Your task to perform on an android device: open app "Spotify: Music and Podcasts" (install if not already installed) Image 0: 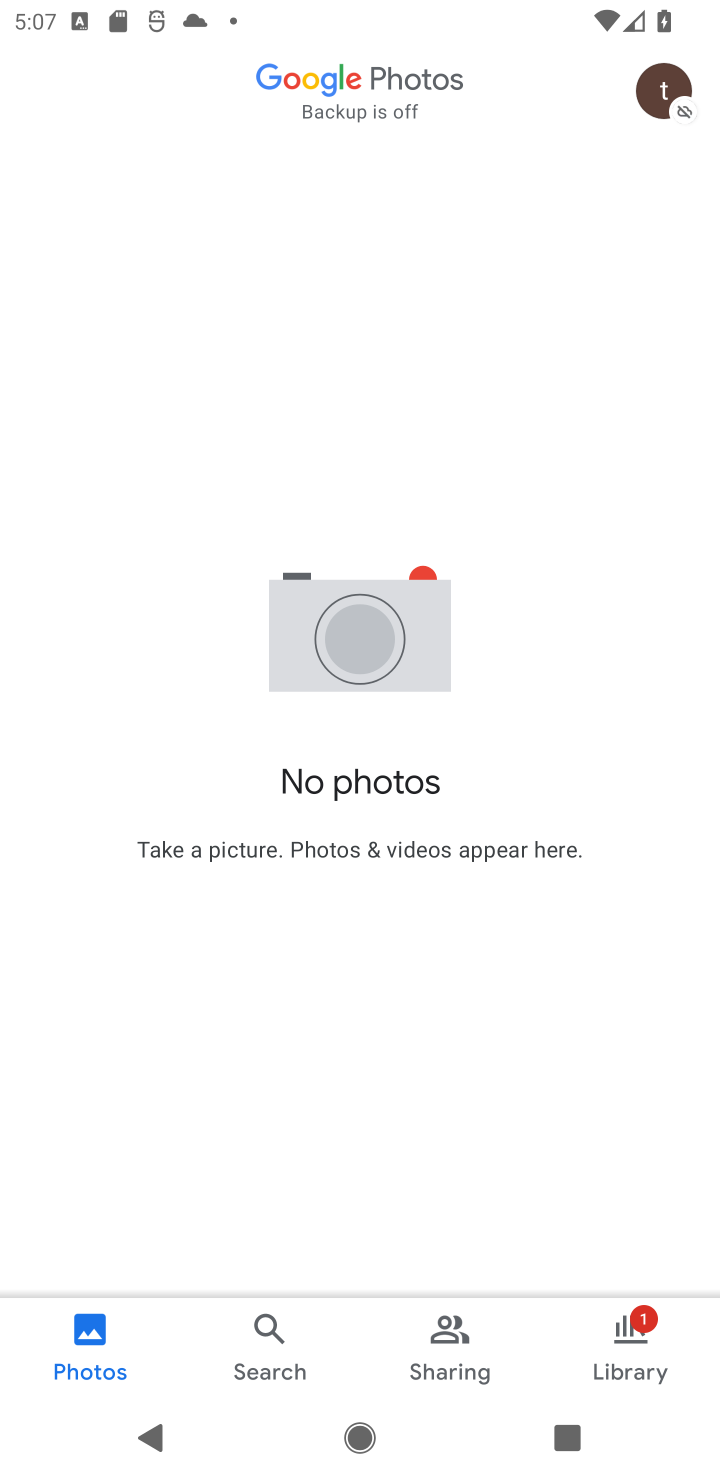
Step 0: press home button
Your task to perform on an android device: open app "Spotify: Music and Podcasts" (install if not already installed) Image 1: 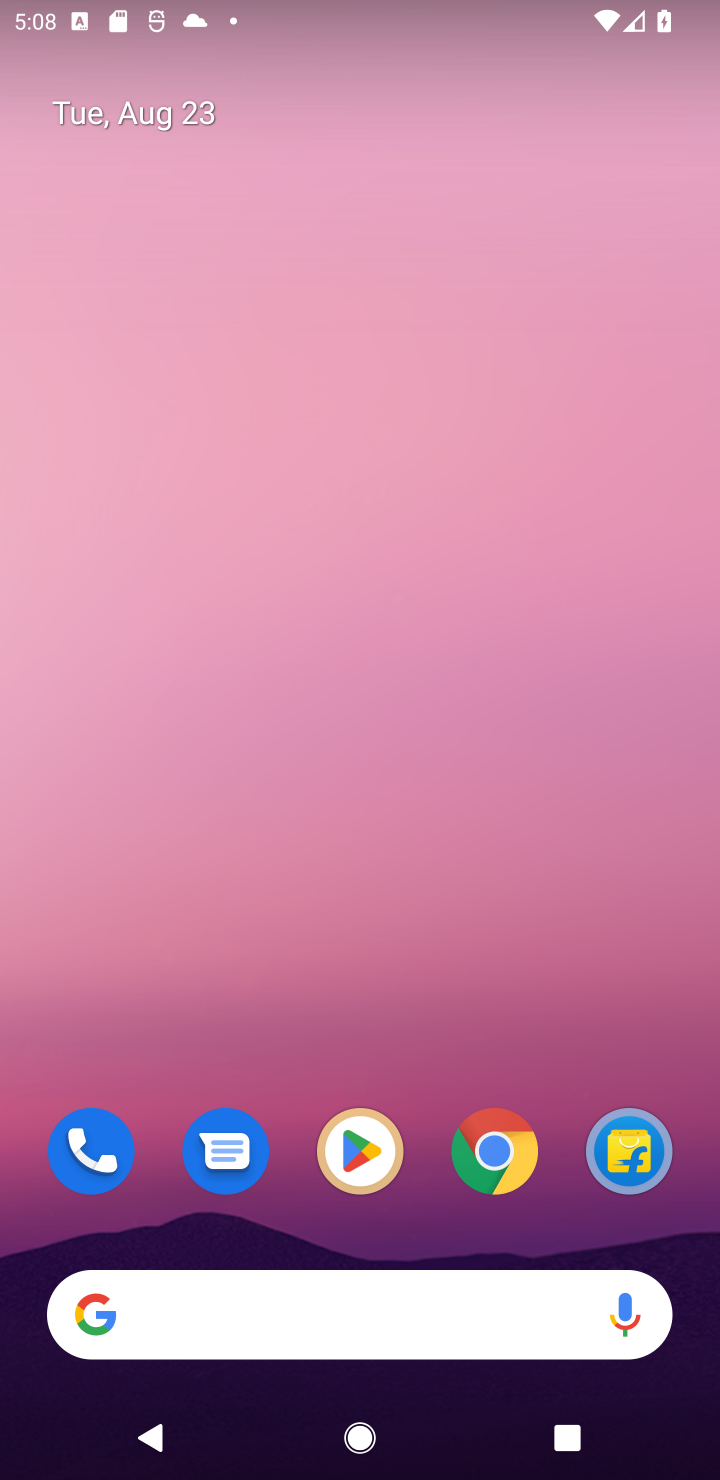
Step 1: click (354, 1160)
Your task to perform on an android device: open app "Spotify: Music and Podcasts" (install if not already installed) Image 2: 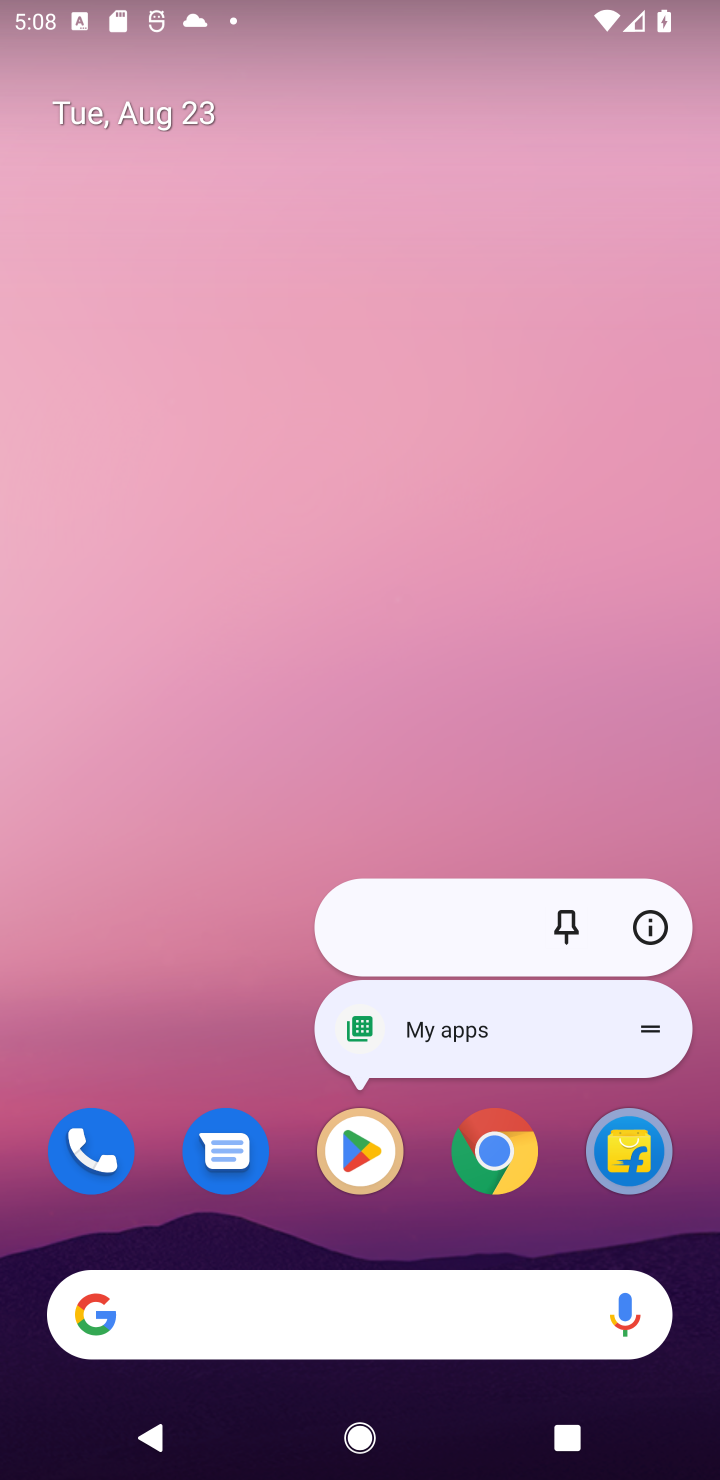
Step 2: click (354, 1167)
Your task to perform on an android device: open app "Spotify: Music and Podcasts" (install if not already installed) Image 3: 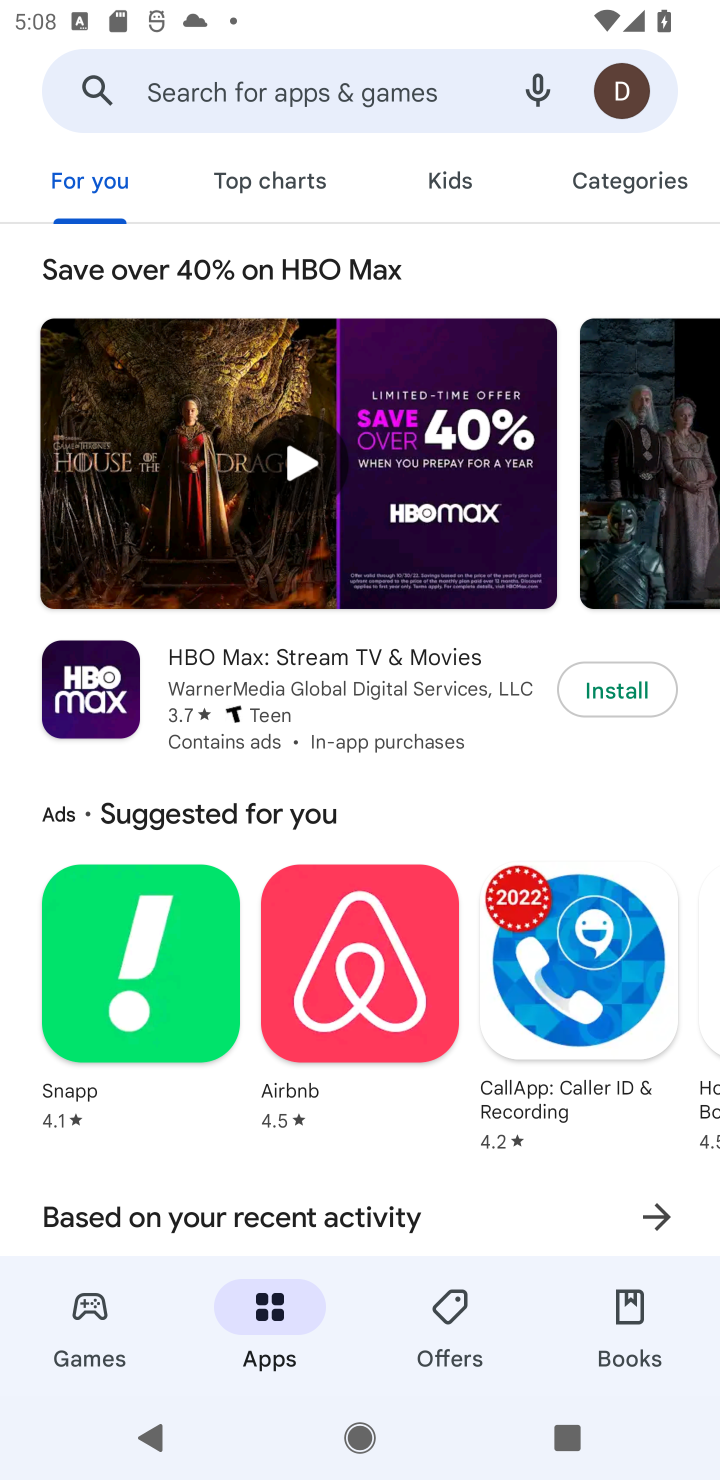
Step 3: click (394, 85)
Your task to perform on an android device: open app "Spotify: Music and Podcasts" (install if not already installed) Image 4: 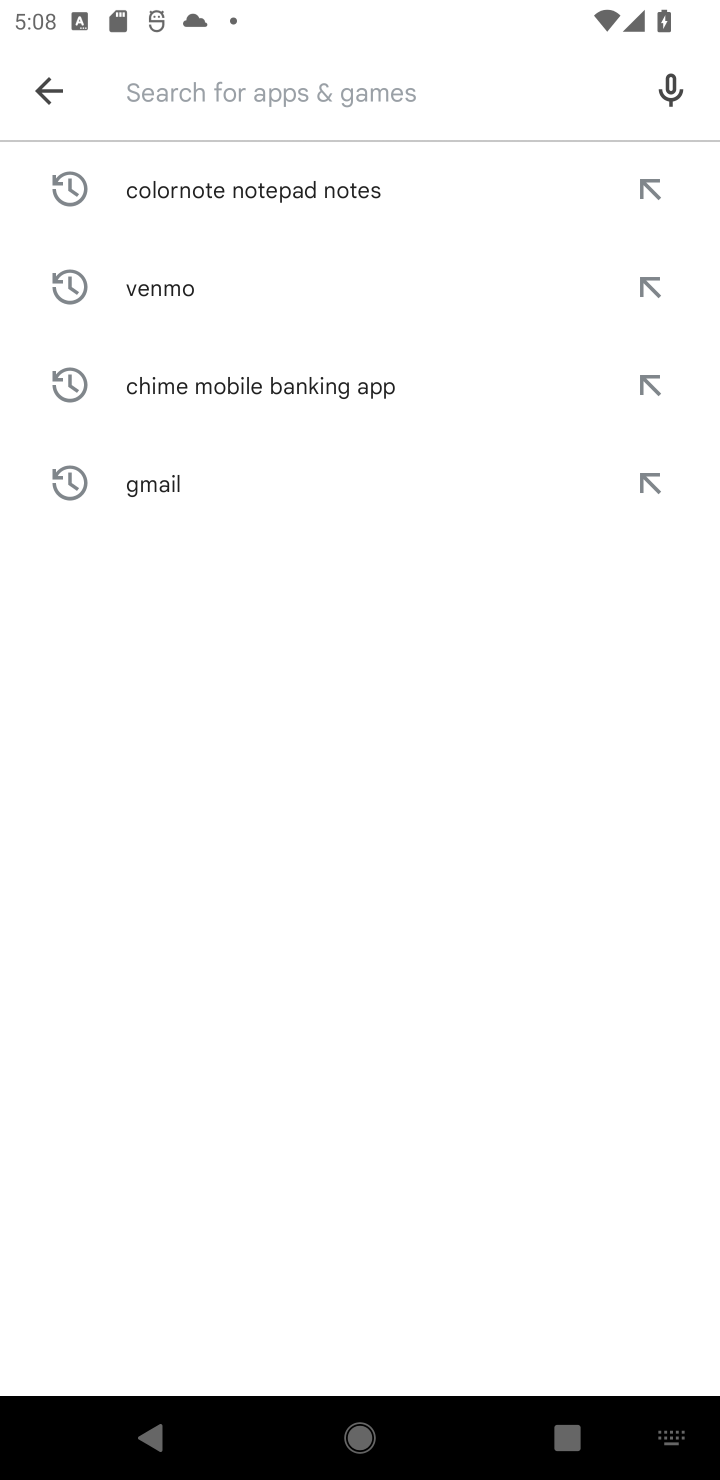
Step 4: type "Spotify: Music and Podcasts"
Your task to perform on an android device: open app "Spotify: Music and Podcasts" (install if not already installed) Image 5: 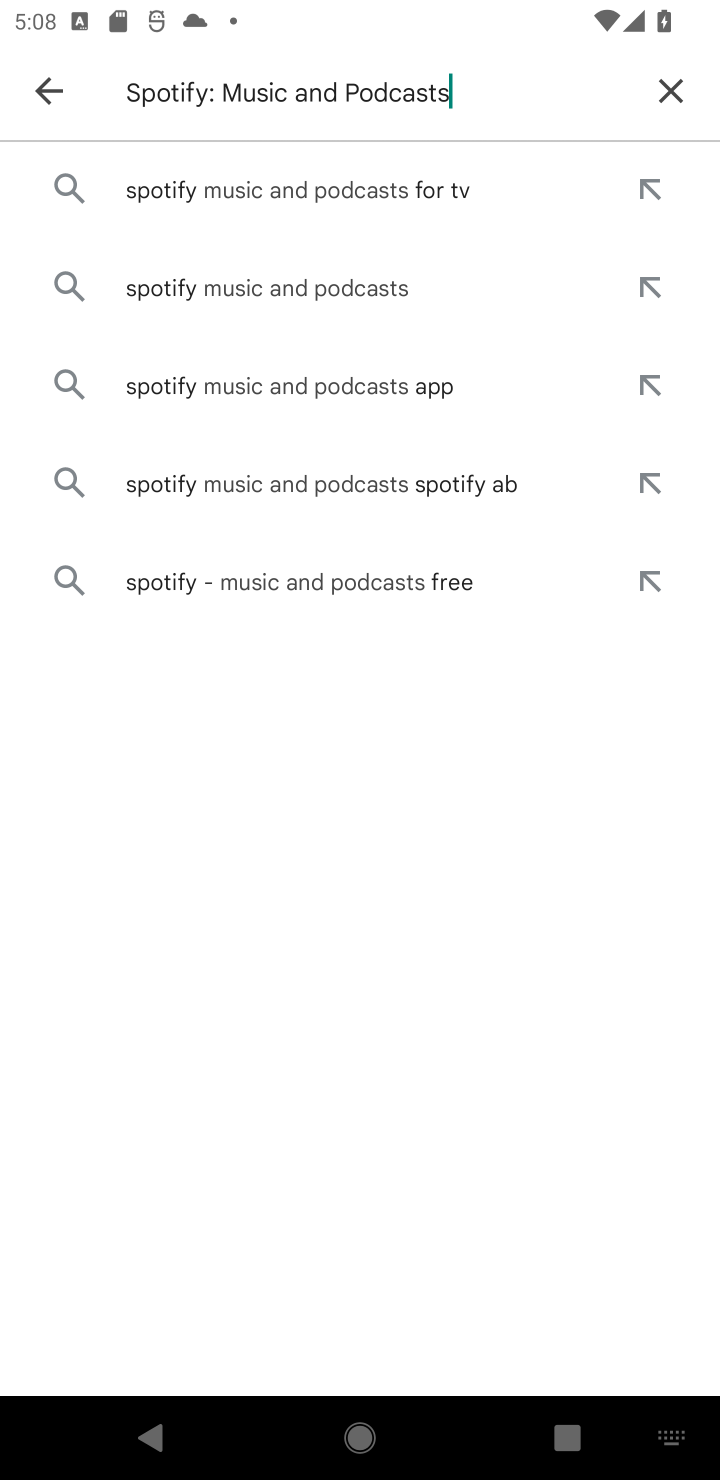
Step 5: click (251, 187)
Your task to perform on an android device: open app "Spotify: Music and Podcasts" (install if not already installed) Image 6: 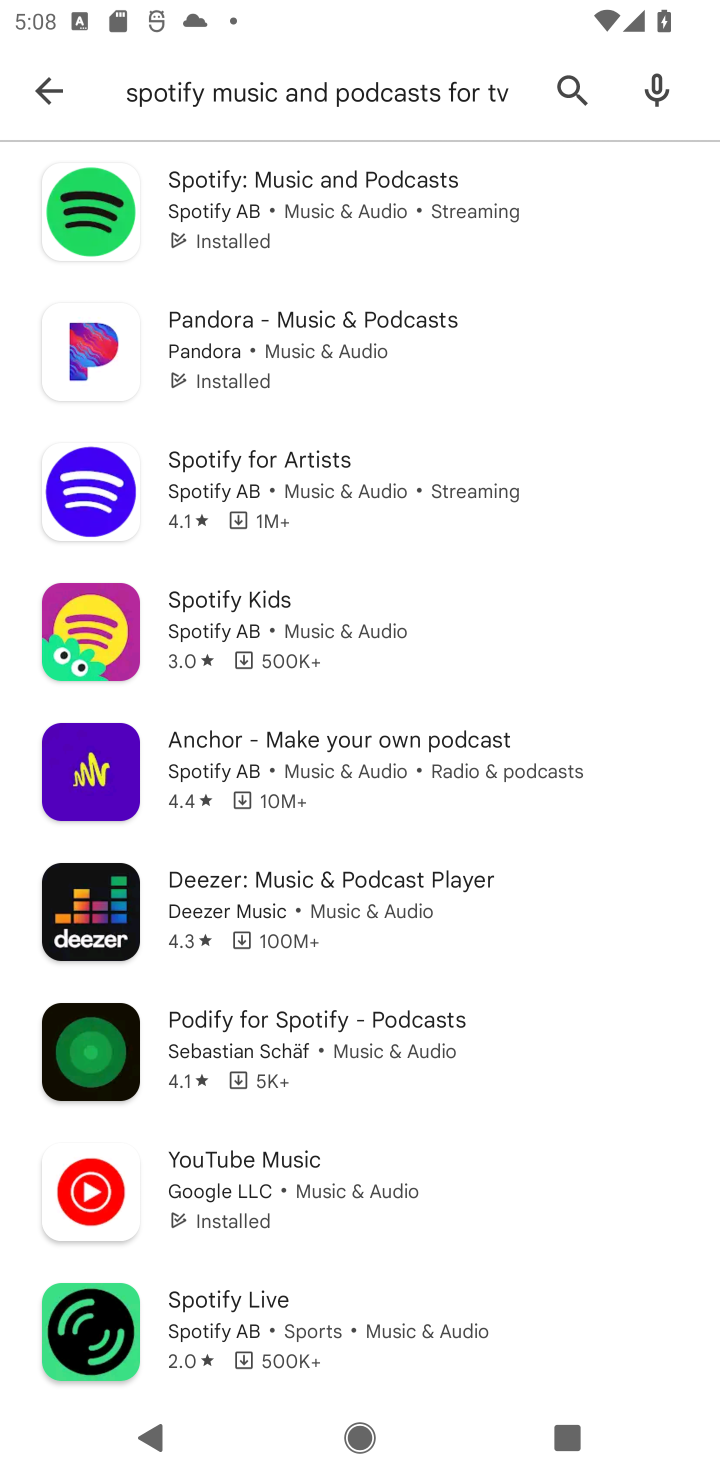
Step 6: click (273, 201)
Your task to perform on an android device: open app "Spotify: Music and Podcasts" (install if not already installed) Image 7: 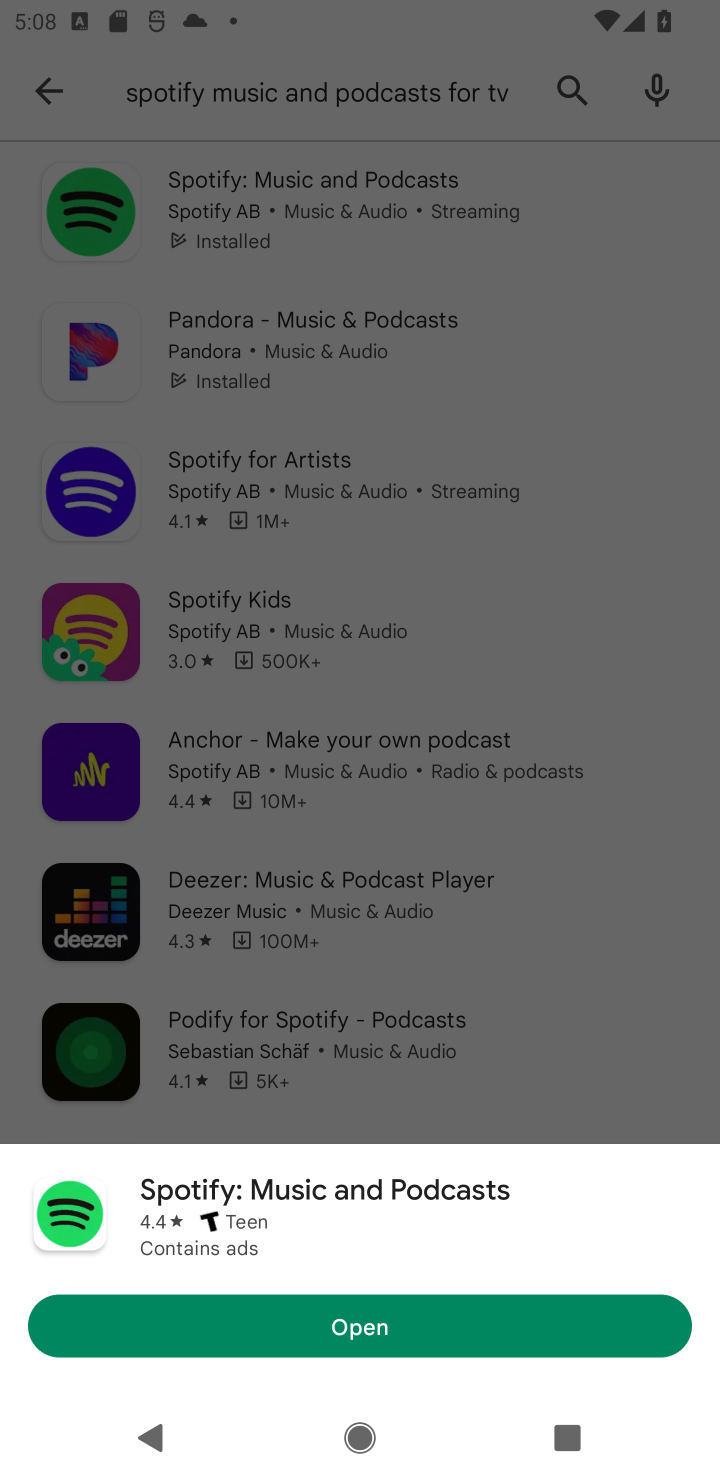
Step 7: task complete